Your task to perform on an android device: turn on javascript in the chrome app Image 0: 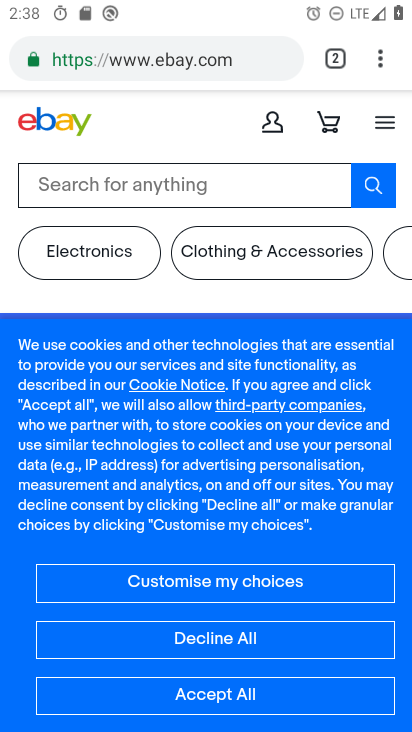
Step 0: click (381, 55)
Your task to perform on an android device: turn on javascript in the chrome app Image 1: 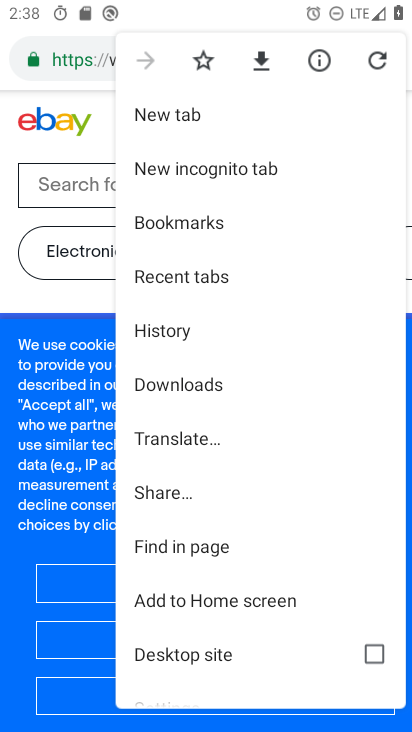
Step 1: drag from (200, 624) to (274, 233)
Your task to perform on an android device: turn on javascript in the chrome app Image 2: 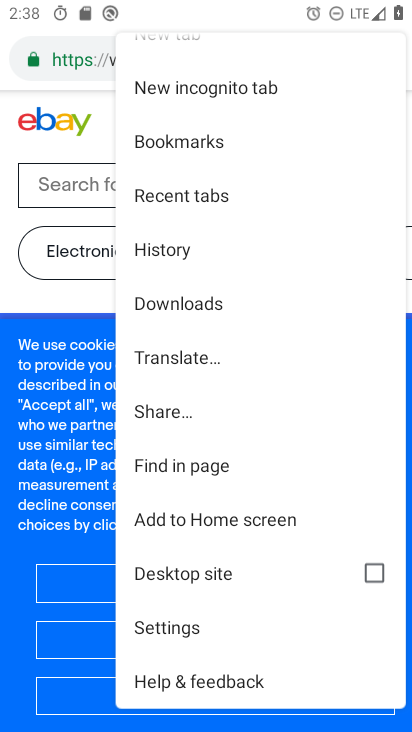
Step 2: click (178, 624)
Your task to perform on an android device: turn on javascript in the chrome app Image 3: 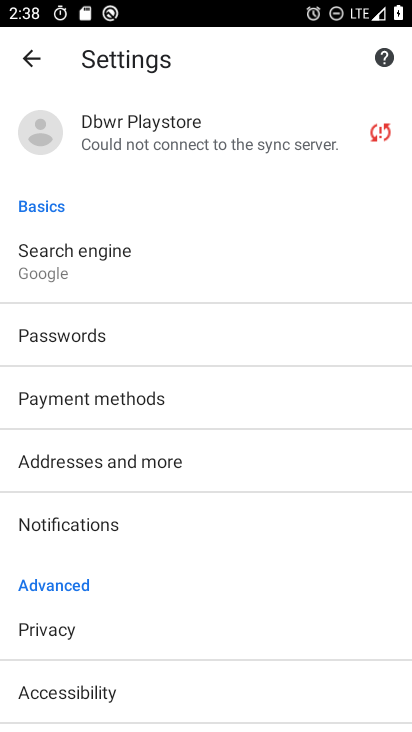
Step 3: drag from (165, 617) to (221, 215)
Your task to perform on an android device: turn on javascript in the chrome app Image 4: 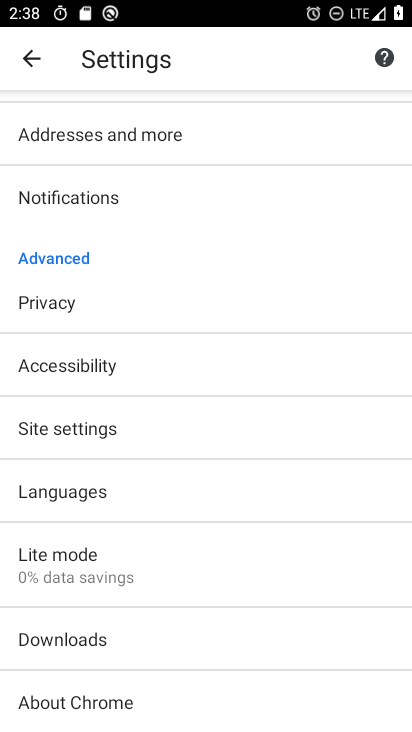
Step 4: drag from (172, 651) to (221, 437)
Your task to perform on an android device: turn on javascript in the chrome app Image 5: 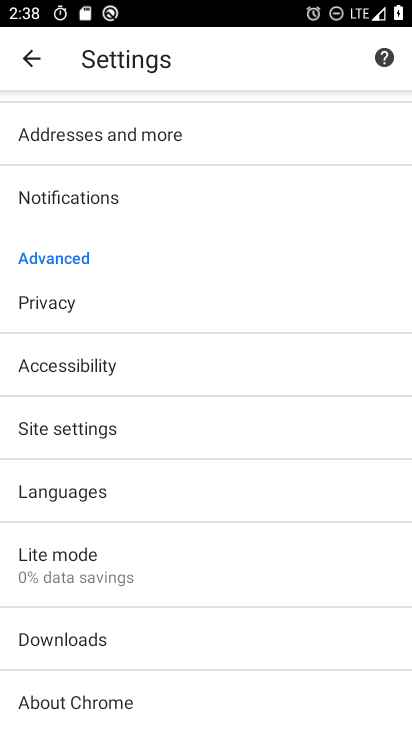
Step 5: click (111, 418)
Your task to perform on an android device: turn on javascript in the chrome app Image 6: 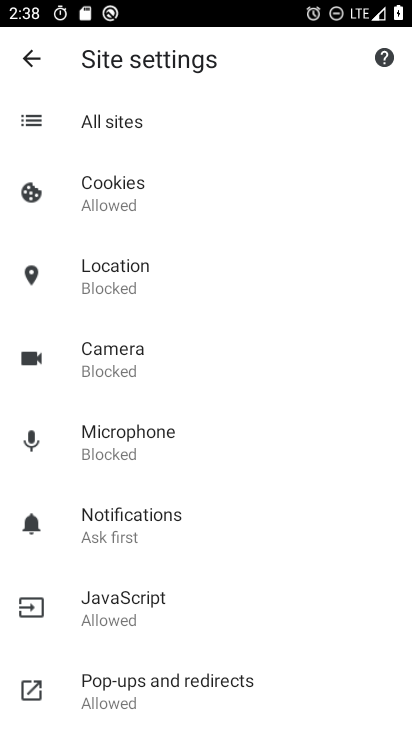
Step 6: click (149, 609)
Your task to perform on an android device: turn on javascript in the chrome app Image 7: 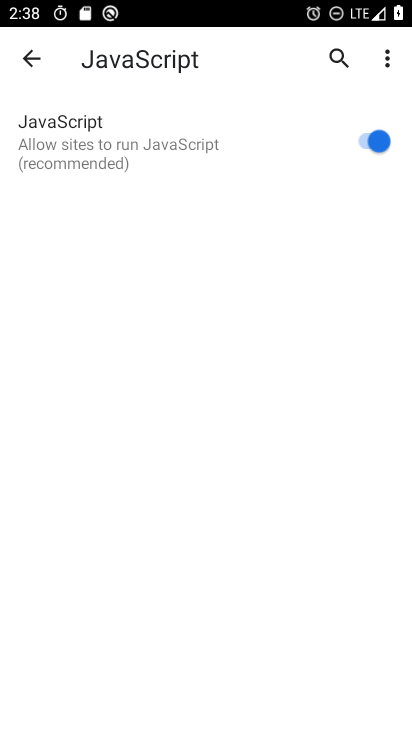
Step 7: task complete